Your task to perform on an android device: Open wifi settings Image 0: 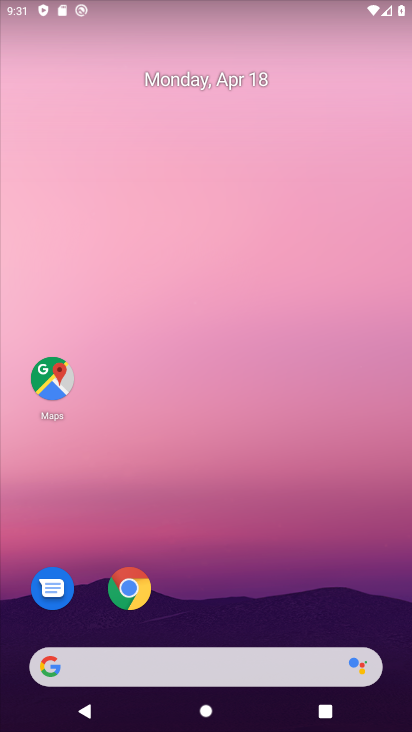
Step 0: drag from (198, 8) to (217, 438)
Your task to perform on an android device: Open wifi settings Image 1: 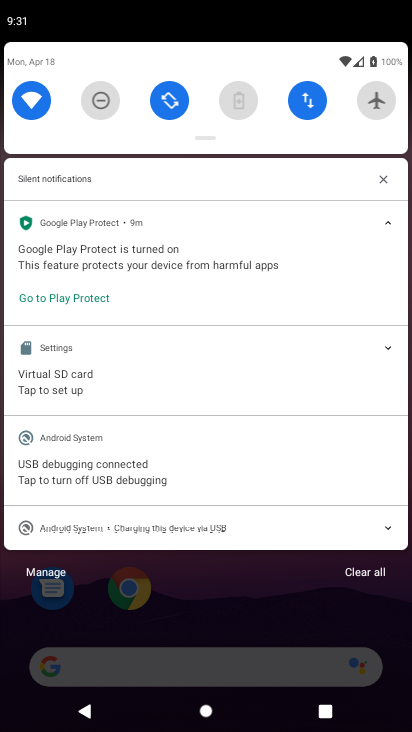
Step 1: drag from (204, 120) to (211, 519)
Your task to perform on an android device: Open wifi settings Image 2: 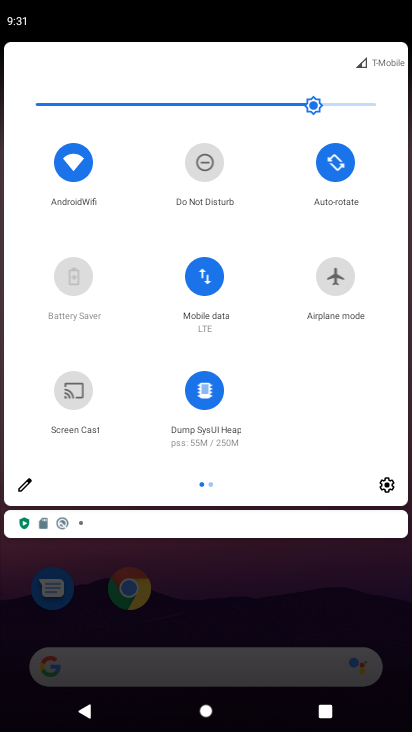
Step 2: click (73, 159)
Your task to perform on an android device: Open wifi settings Image 3: 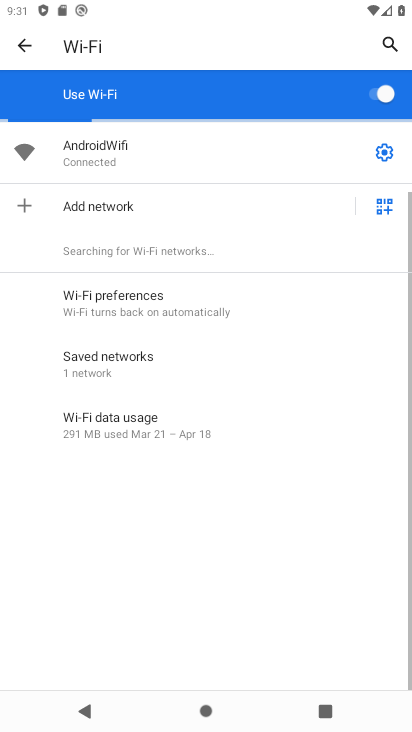
Step 3: task complete